Your task to perform on an android device: turn off translation in the chrome app Image 0: 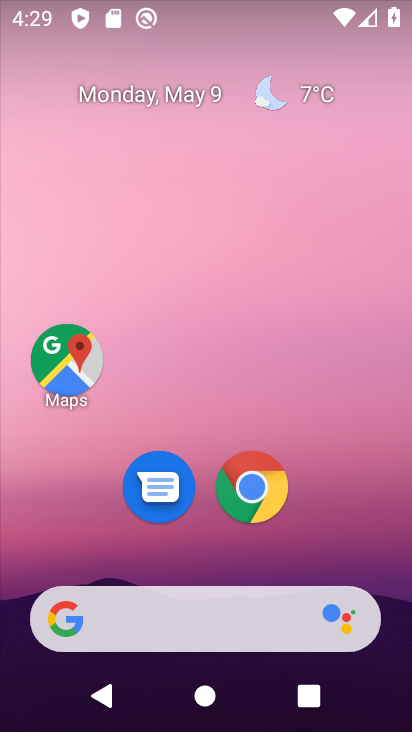
Step 0: click (269, 505)
Your task to perform on an android device: turn off translation in the chrome app Image 1: 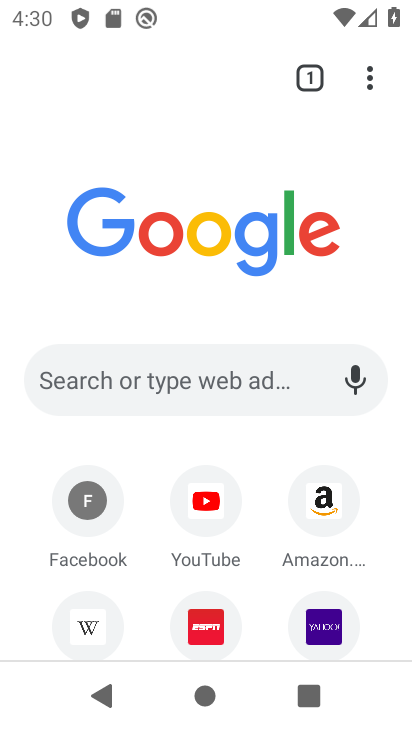
Step 1: click (374, 86)
Your task to perform on an android device: turn off translation in the chrome app Image 2: 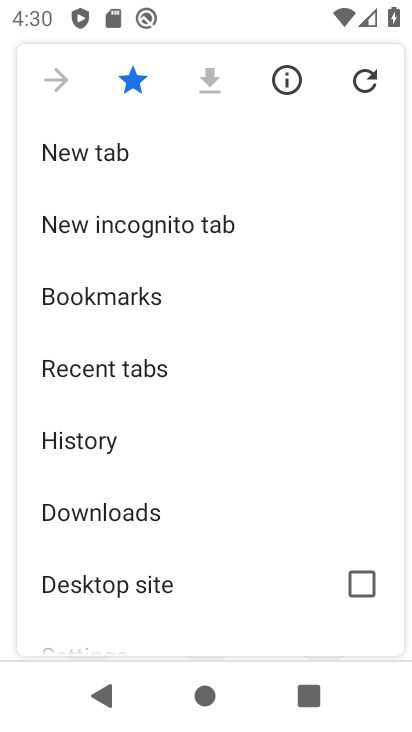
Step 2: drag from (195, 472) to (264, 272)
Your task to perform on an android device: turn off translation in the chrome app Image 3: 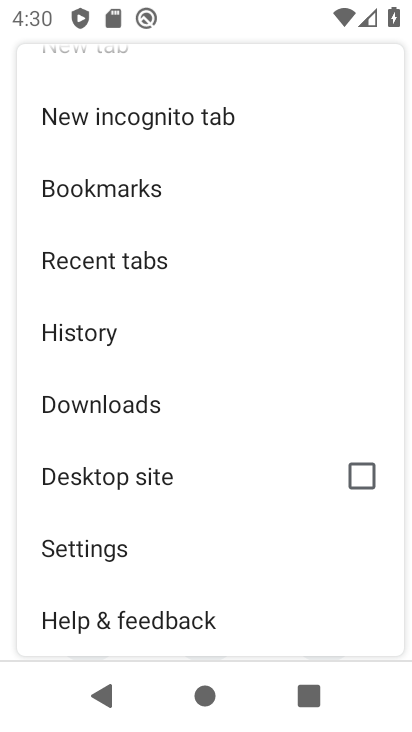
Step 3: click (142, 537)
Your task to perform on an android device: turn off translation in the chrome app Image 4: 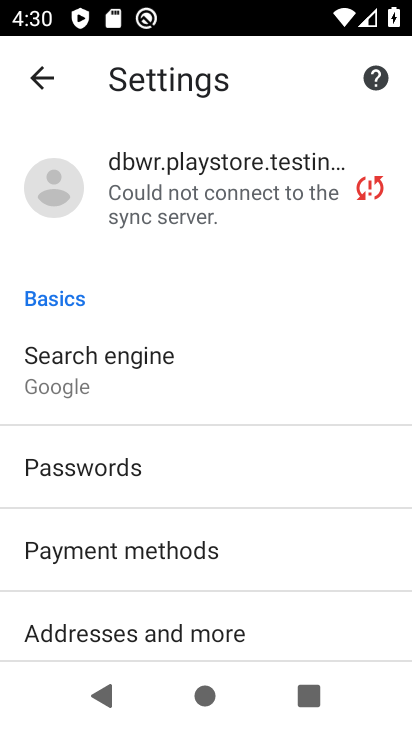
Step 4: drag from (215, 576) to (281, 239)
Your task to perform on an android device: turn off translation in the chrome app Image 5: 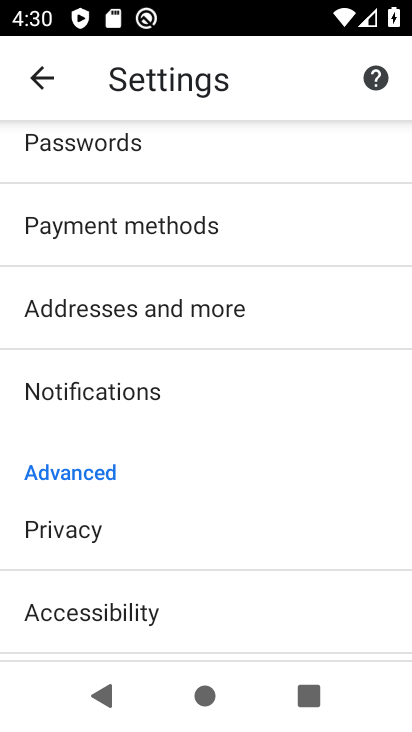
Step 5: drag from (208, 582) to (315, 209)
Your task to perform on an android device: turn off translation in the chrome app Image 6: 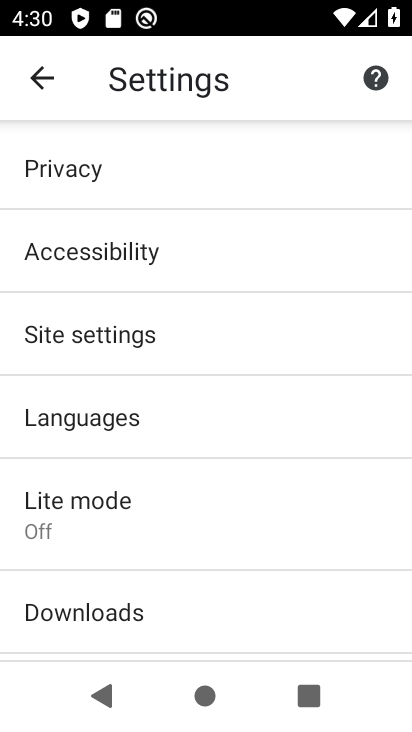
Step 6: drag from (195, 587) to (255, 405)
Your task to perform on an android device: turn off translation in the chrome app Image 7: 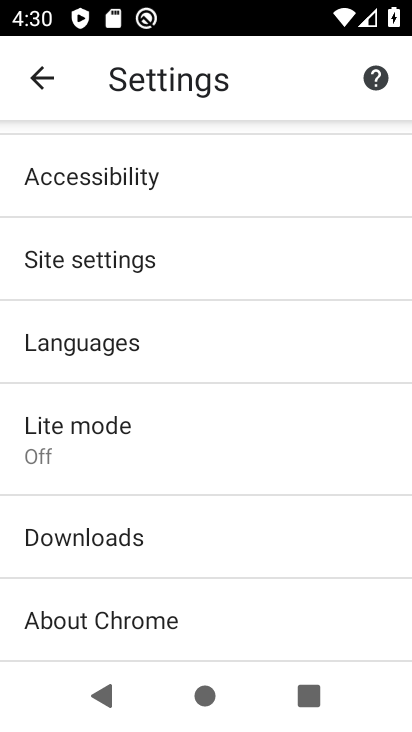
Step 7: click (218, 354)
Your task to perform on an android device: turn off translation in the chrome app Image 8: 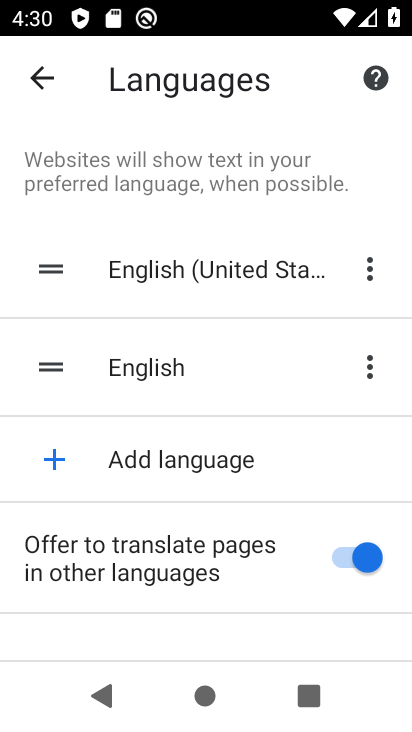
Step 8: click (343, 547)
Your task to perform on an android device: turn off translation in the chrome app Image 9: 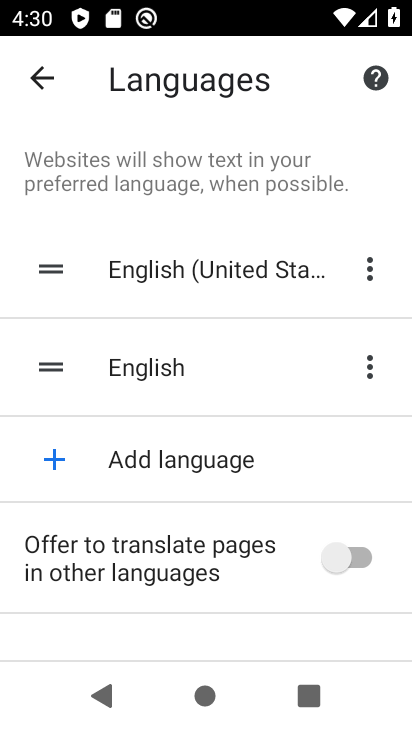
Step 9: task complete